Your task to perform on an android device: Search for Italian restaurants on Maps Image 0: 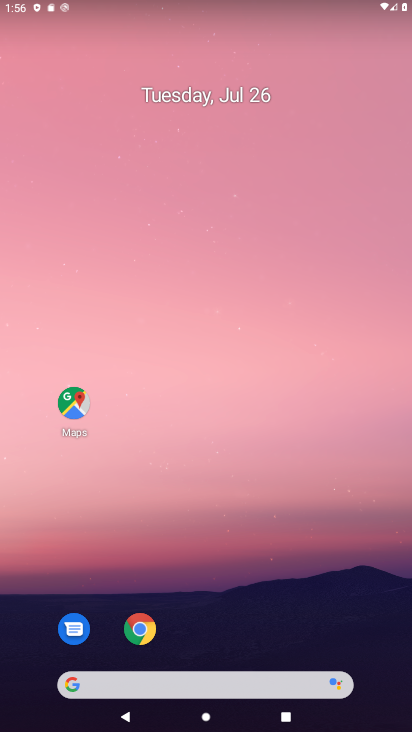
Step 0: click (56, 392)
Your task to perform on an android device: Search for Italian restaurants on Maps Image 1: 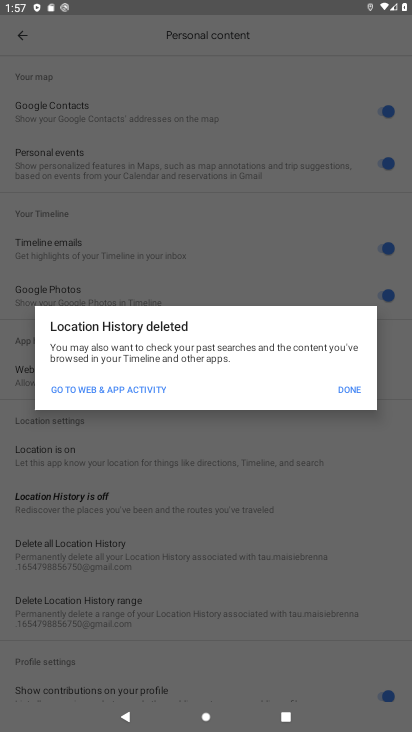
Step 1: press home button
Your task to perform on an android device: Search for Italian restaurants on Maps Image 2: 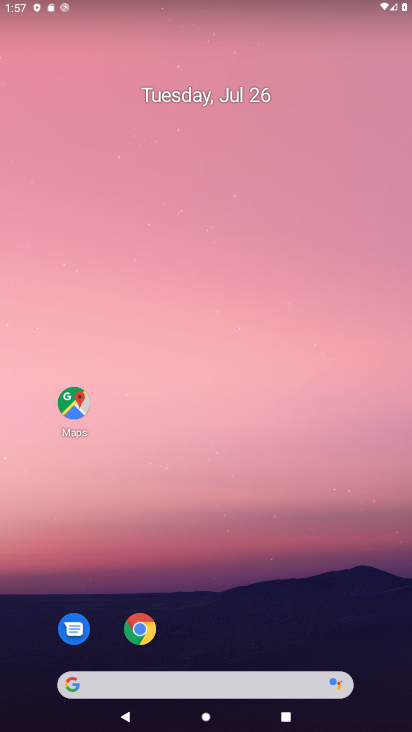
Step 2: click (83, 404)
Your task to perform on an android device: Search for Italian restaurants on Maps Image 3: 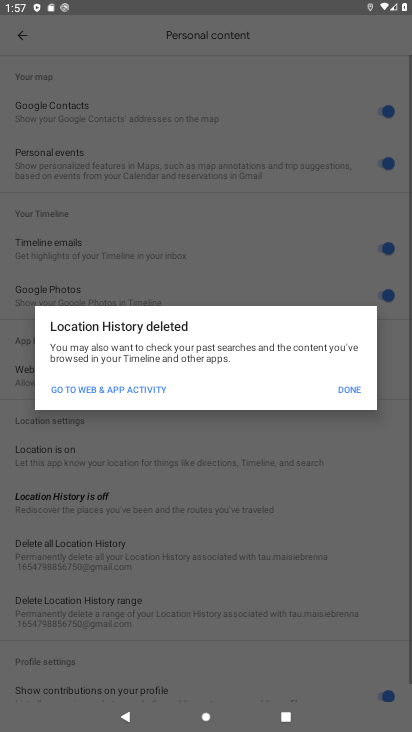
Step 3: click (341, 393)
Your task to perform on an android device: Search for Italian restaurants on Maps Image 4: 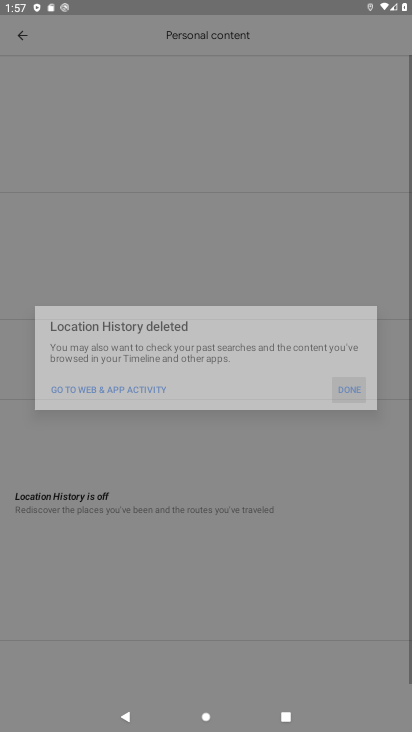
Step 4: click (21, 46)
Your task to perform on an android device: Search for Italian restaurants on Maps Image 5: 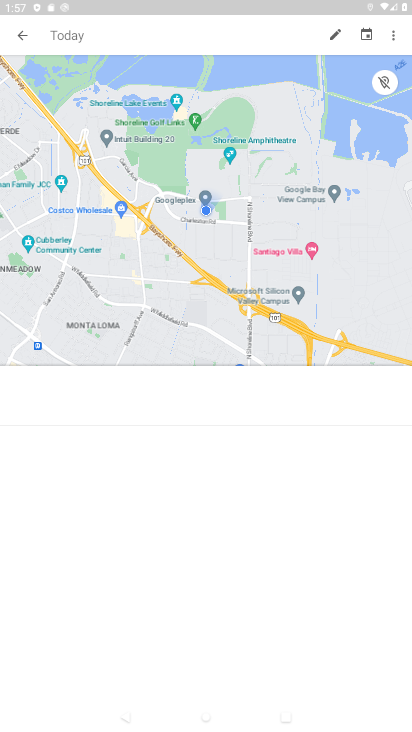
Step 5: click (30, 38)
Your task to perform on an android device: Search for Italian restaurants on Maps Image 6: 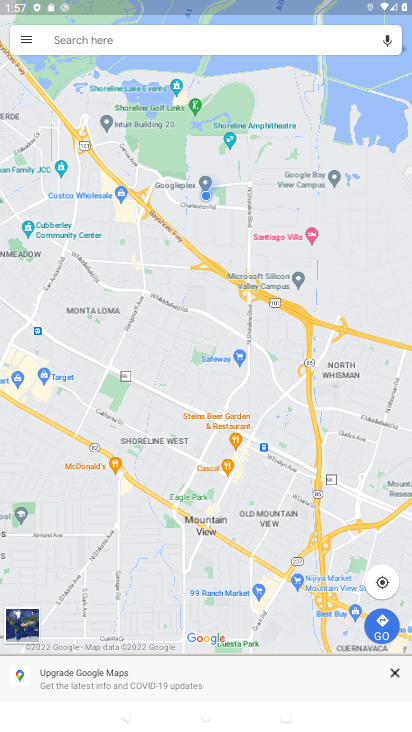
Step 6: click (141, 49)
Your task to perform on an android device: Search for Italian restaurants on Maps Image 7: 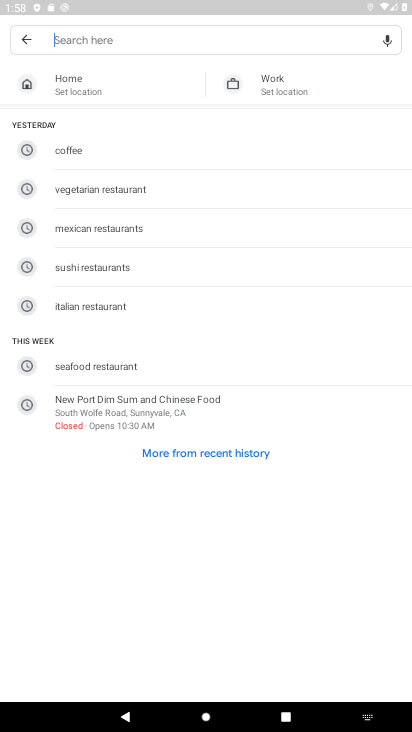
Step 7: type "Italian restaurants"
Your task to perform on an android device: Search for Italian restaurants on Maps Image 8: 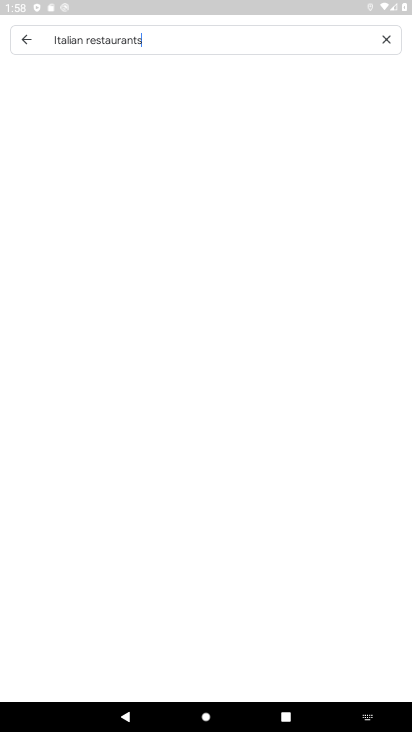
Step 8: type ""
Your task to perform on an android device: Search for Italian restaurants on Maps Image 9: 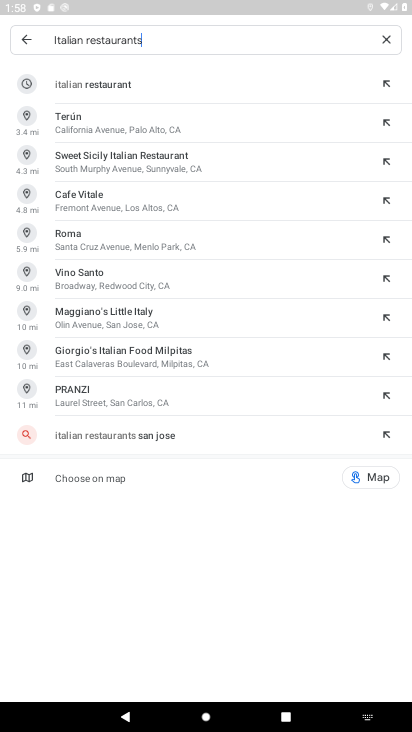
Step 9: click (155, 91)
Your task to perform on an android device: Search for Italian restaurants on Maps Image 10: 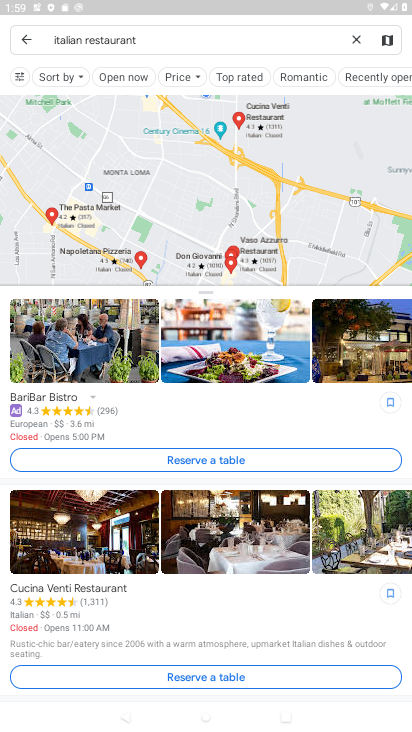
Step 10: task complete